Your task to perform on an android device: Go to wifi settings Image 0: 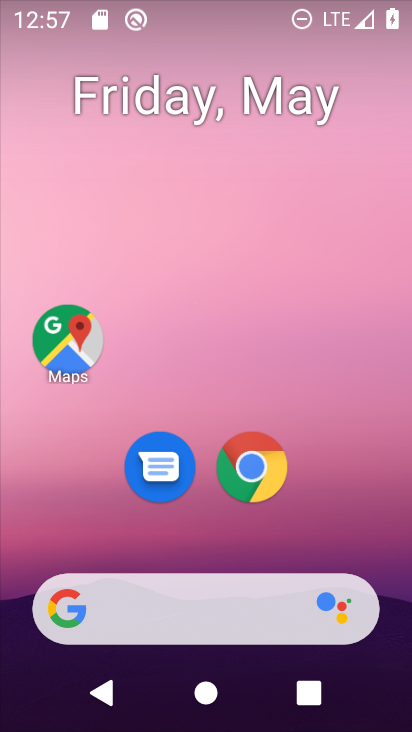
Step 0: drag from (329, 622) to (327, 16)
Your task to perform on an android device: Go to wifi settings Image 1: 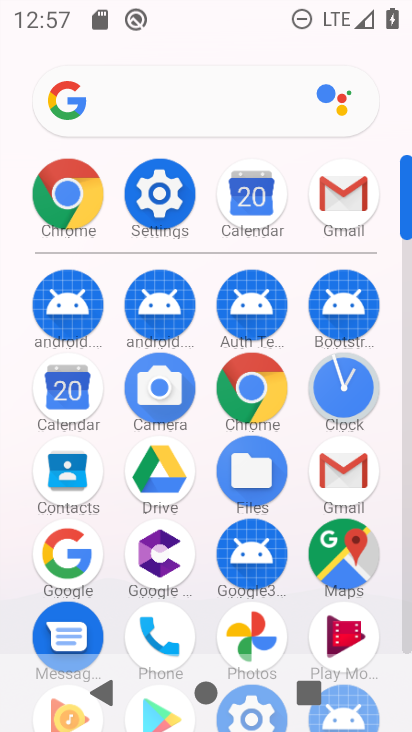
Step 1: click (171, 197)
Your task to perform on an android device: Go to wifi settings Image 2: 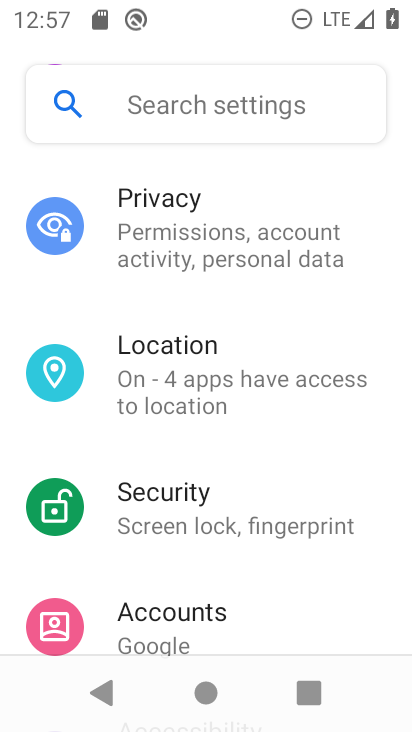
Step 2: drag from (254, 257) to (252, 651)
Your task to perform on an android device: Go to wifi settings Image 3: 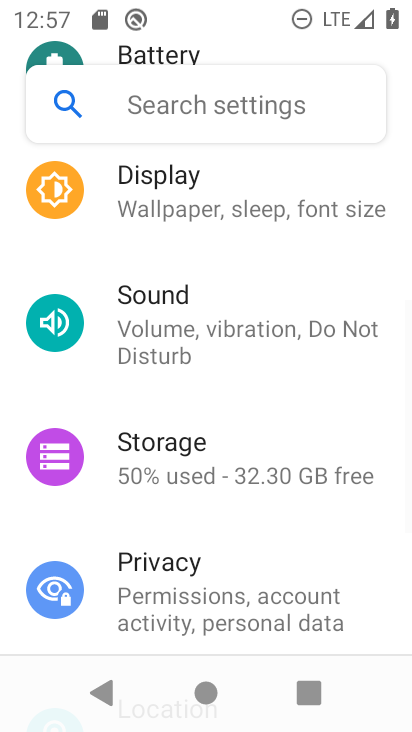
Step 3: drag from (240, 249) to (410, 338)
Your task to perform on an android device: Go to wifi settings Image 4: 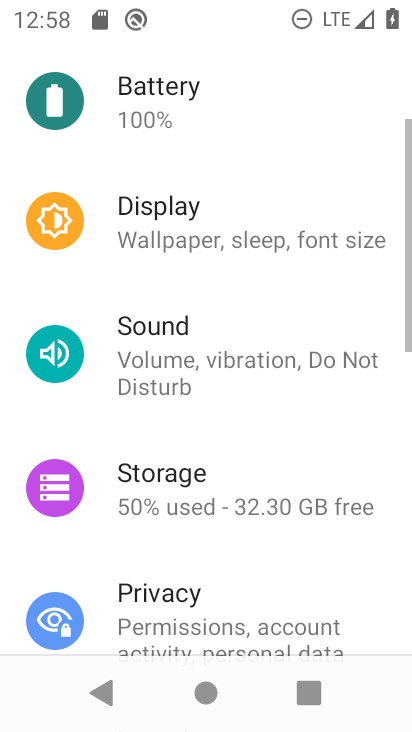
Step 4: drag from (286, 216) to (280, 688)
Your task to perform on an android device: Go to wifi settings Image 5: 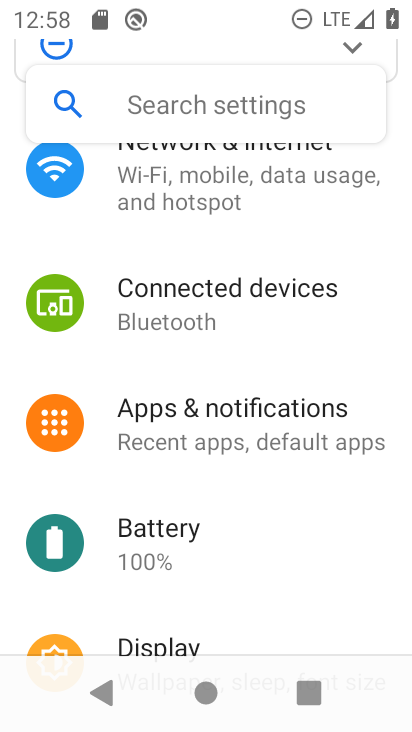
Step 5: drag from (285, 293) to (265, 679)
Your task to perform on an android device: Go to wifi settings Image 6: 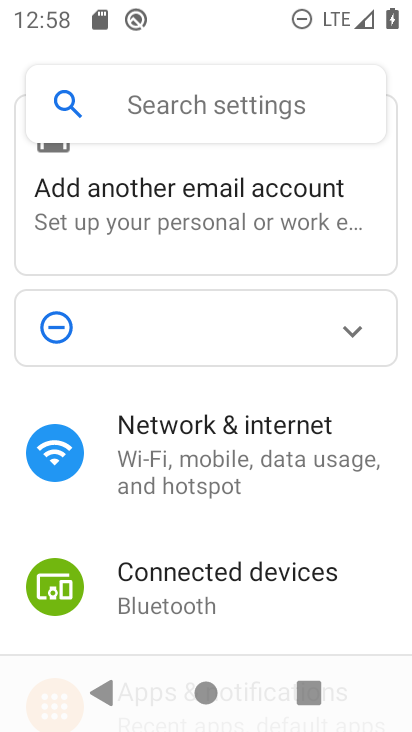
Step 6: click (227, 455)
Your task to perform on an android device: Go to wifi settings Image 7: 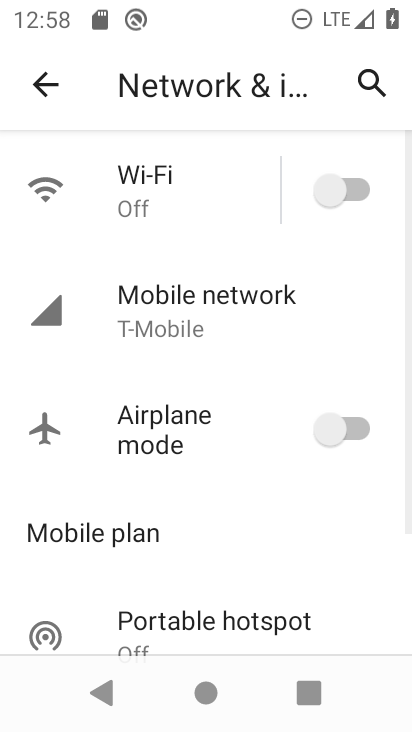
Step 7: click (188, 203)
Your task to perform on an android device: Go to wifi settings Image 8: 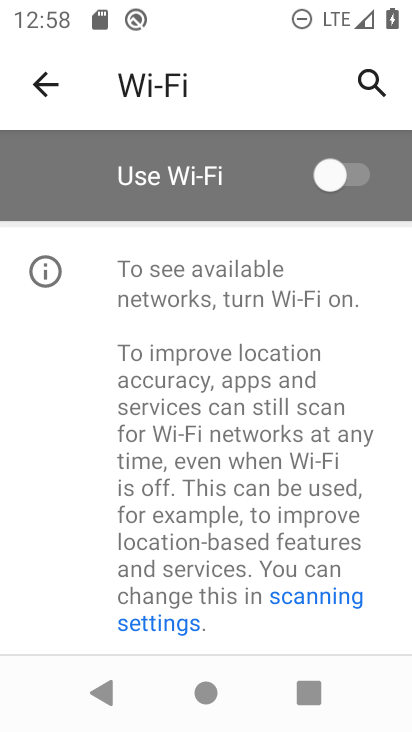
Step 8: task complete